Your task to perform on an android device: empty trash in google photos Image 0: 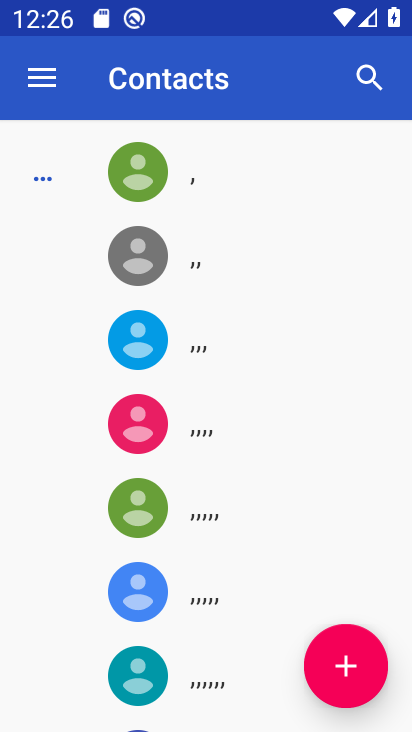
Step 0: press home button
Your task to perform on an android device: empty trash in google photos Image 1: 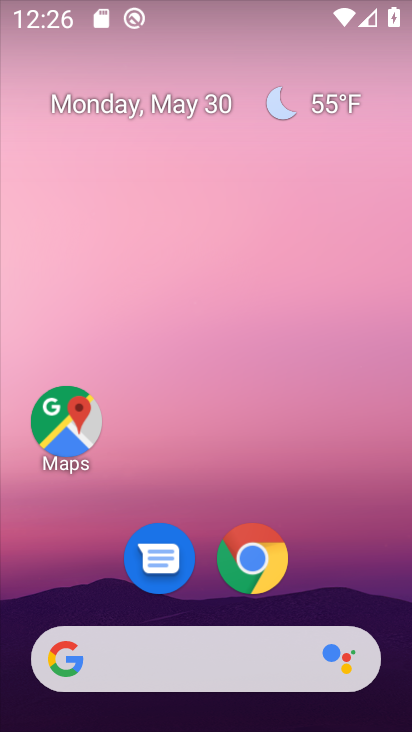
Step 1: drag from (361, 534) to (408, 214)
Your task to perform on an android device: empty trash in google photos Image 2: 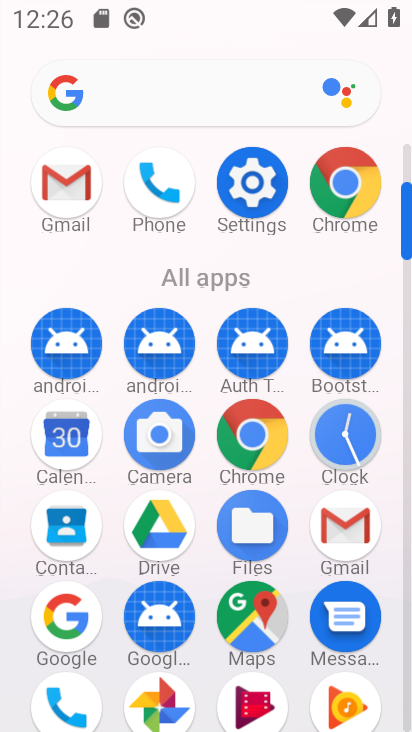
Step 2: drag from (393, 591) to (399, 274)
Your task to perform on an android device: empty trash in google photos Image 3: 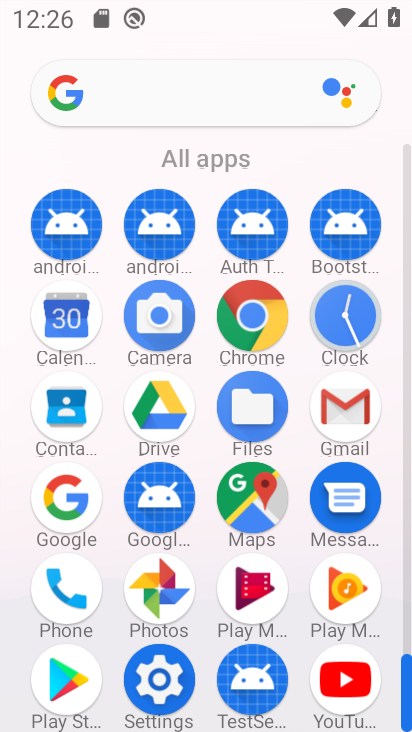
Step 3: click (165, 595)
Your task to perform on an android device: empty trash in google photos Image 4: 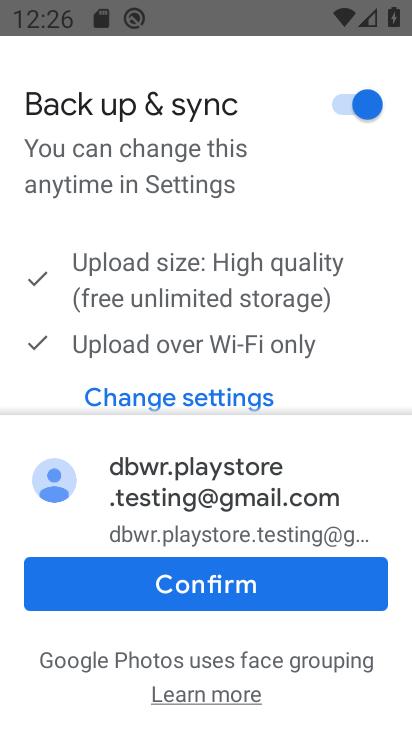
Step 4: click (176, 588)
Your task to perform on an android device: empty trash in google photos Image 5: 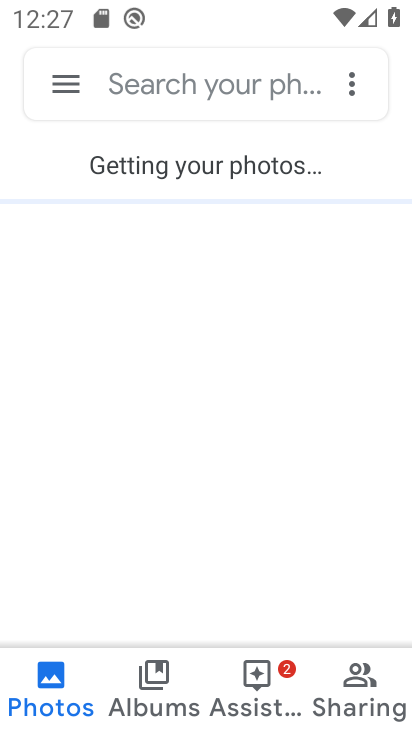
Step 5: click (53, 95)
Your task to perform on an android device: empty trash in google photos Image 6: 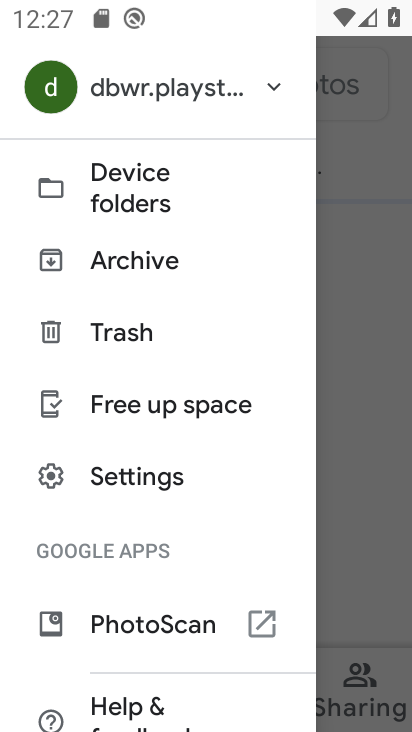
Step 6: click (105, 350)
Your task to perform on an android device: empty trash in google photos Image 7: 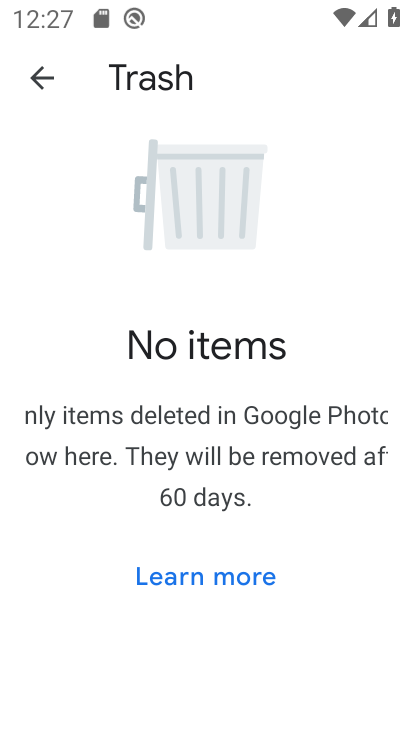
Step 7: task complete